Your task to perform on an android device: Go to notification settings Image 0: 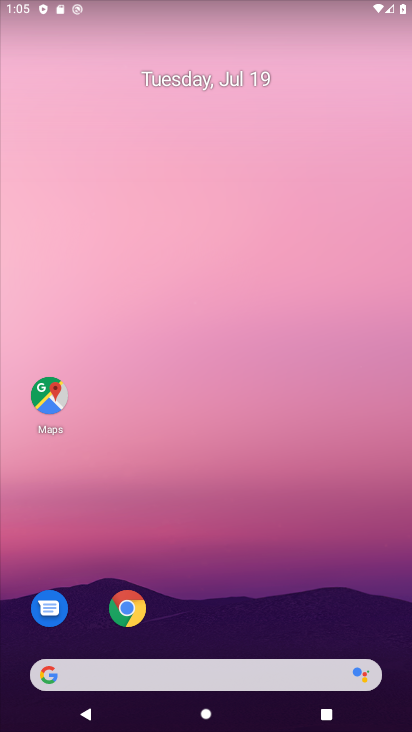
Step 0: drag from (196, 630) to (196, 80)
Your task to perform on an android device: Go to notification settings Image 1: 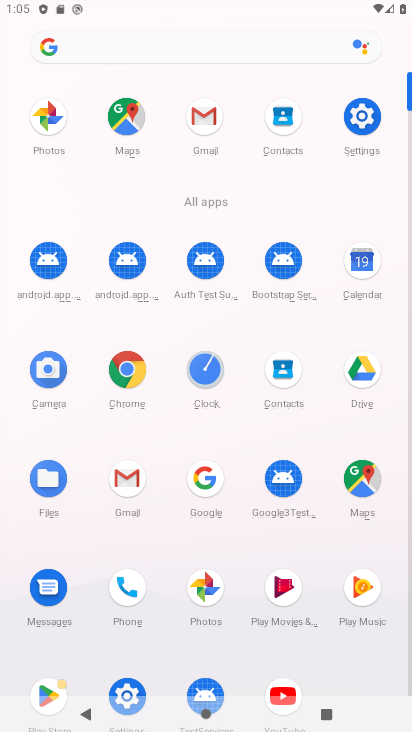
Step 1: click (362, 121)
Your task to perform on an android device: Go to notification settings Image 2: 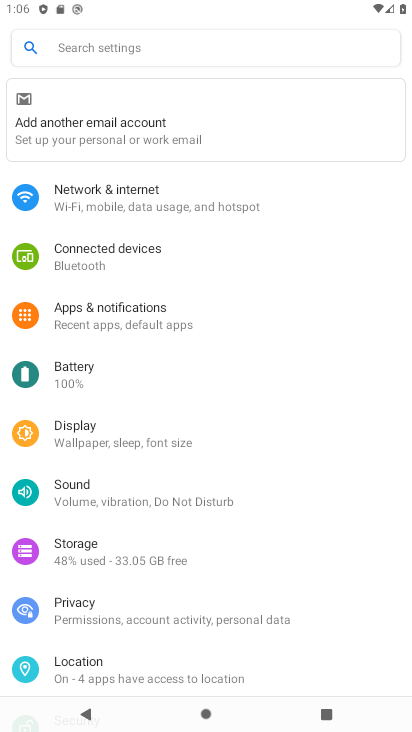
Step 2: click (146, 314)
Your task to perform on an android device: Go to notification settings Image 3: 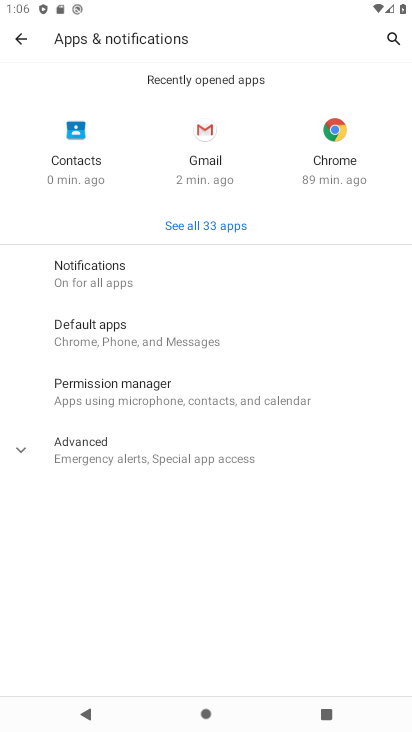
Step 3: click (97, 282)
Your task to perform on an android device: Go to notification settings Image 4: 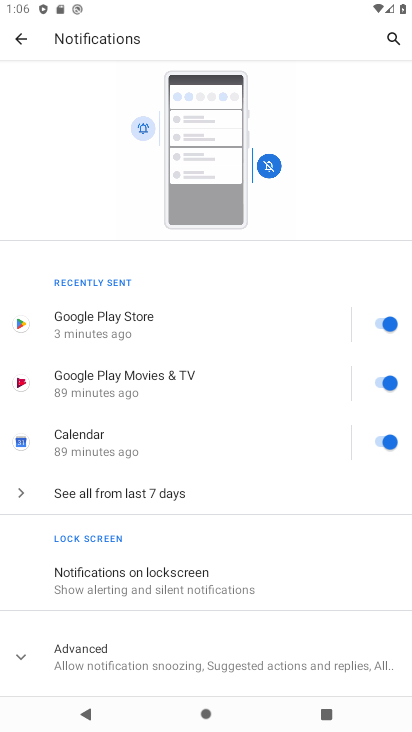
Step 4: task complete